Your task to perform on an android device: delete a single message in the gmail app Image 0: 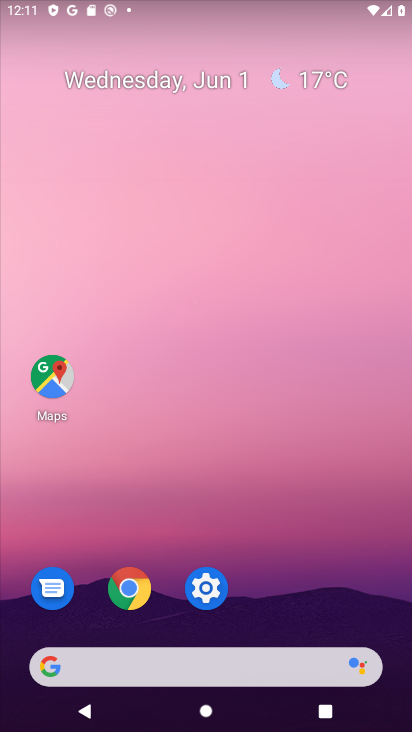
Step 0: drag from (230, 696) to (217, 464)
Your task to perform on an android device: delete a single message in the gmail app Image 1: 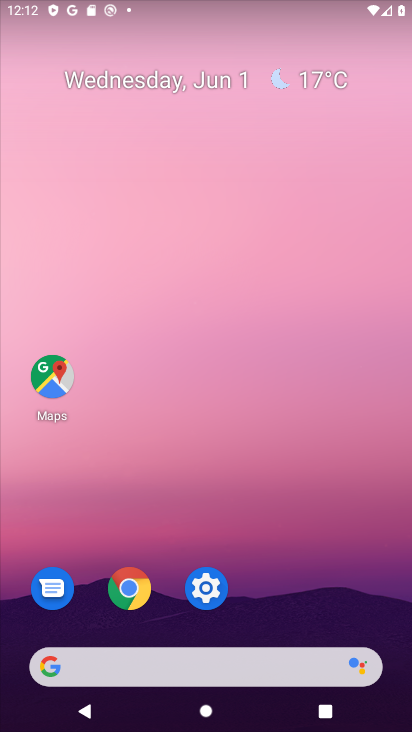
Step 1: drag from (244, 624) to (204, 215)
Your task to perform on an android device: delete a single message in the gmail app Image 2: 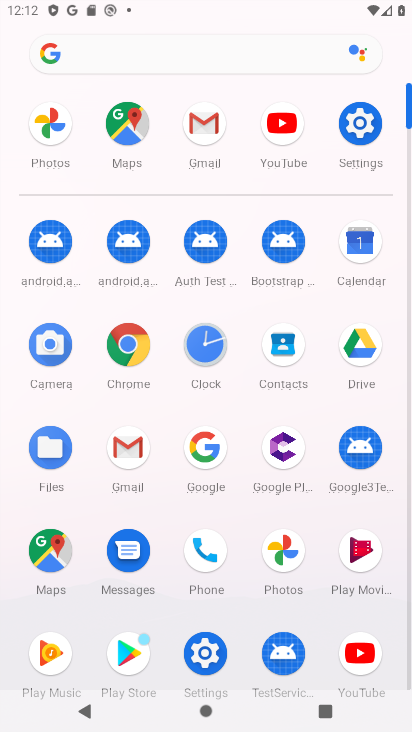
Step 2: click (128, 438)
Your task to perform on an android device: delete a single message in the gmail app Image 3: 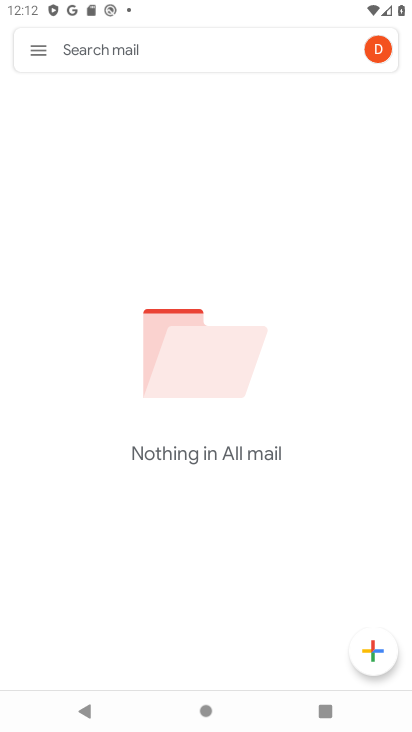
Step 3: click (47, 57)
Your task to perform on an android device: delete a single message in the gmail app Image 4: 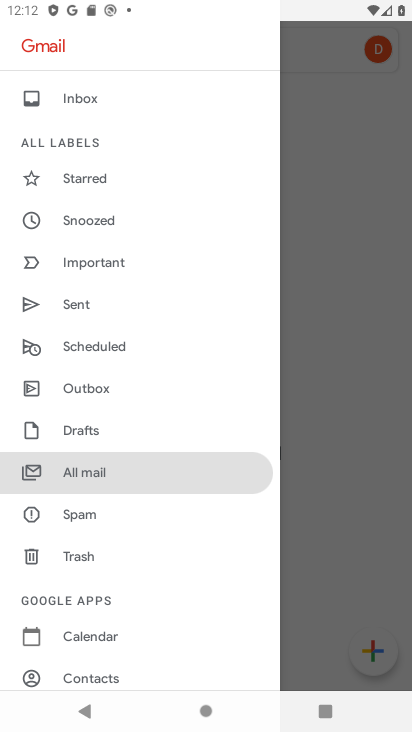
Step 4: click (75, 461)
Your task to perform on an android device: delete a single message in the gmail app Image 5: 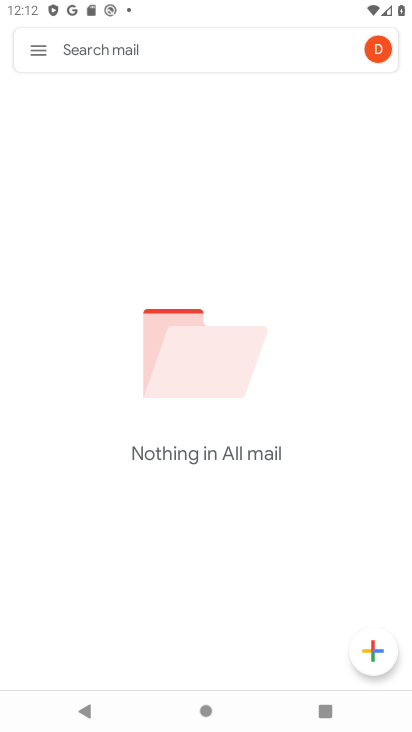
Step 5: task complete